Your task to perform on an android device: turn off javascript in the chrome app Image 0: 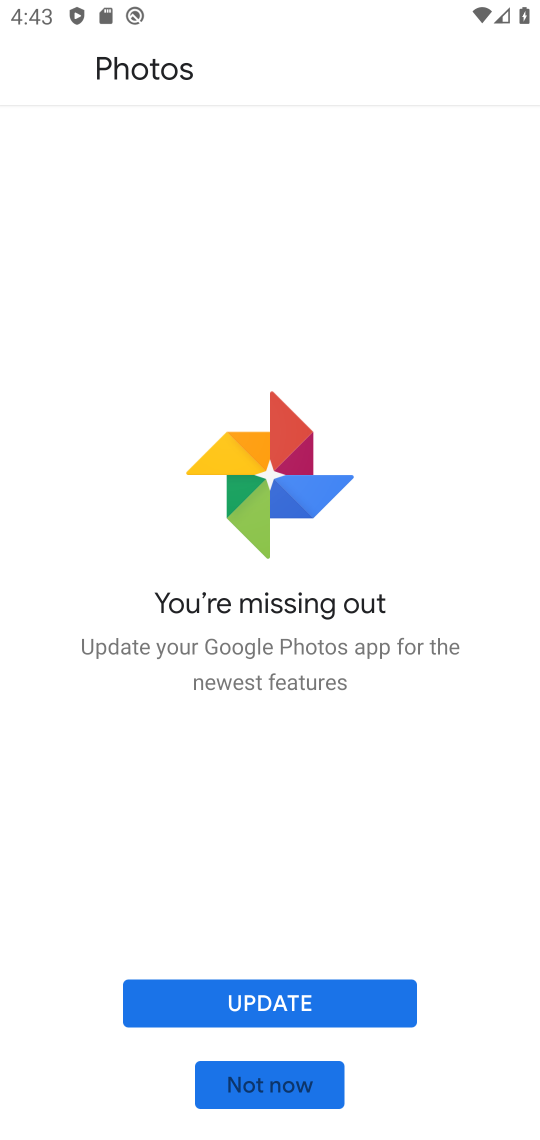
Step 0: press home button
Your task to perform on an android device: turn off javascript in the chrome app Image 1: 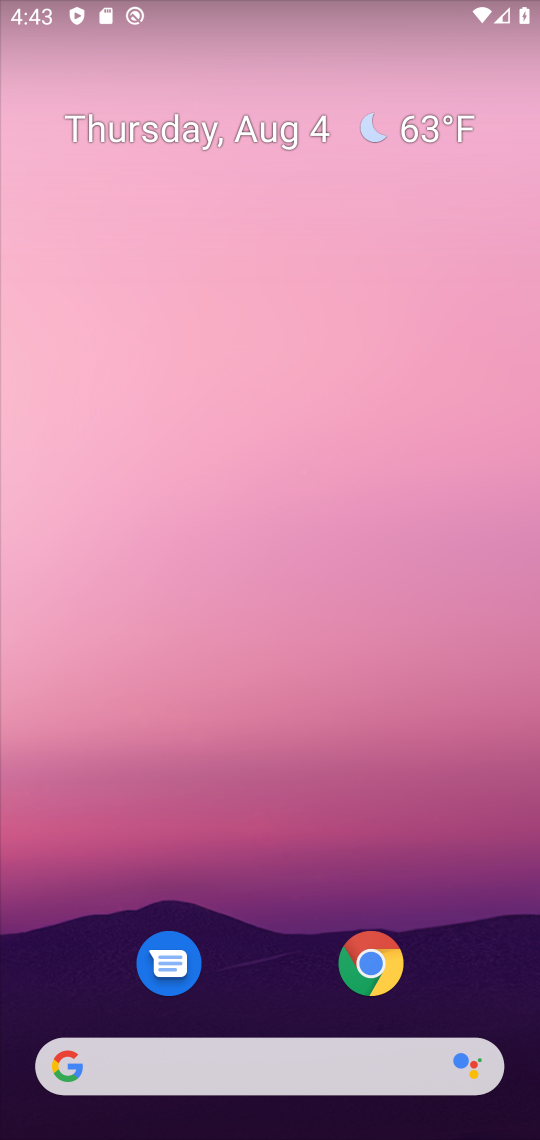
Step 1: click (372, 968)
Your task to perform on an android device: turn off javascript in the chrome app Image 2: 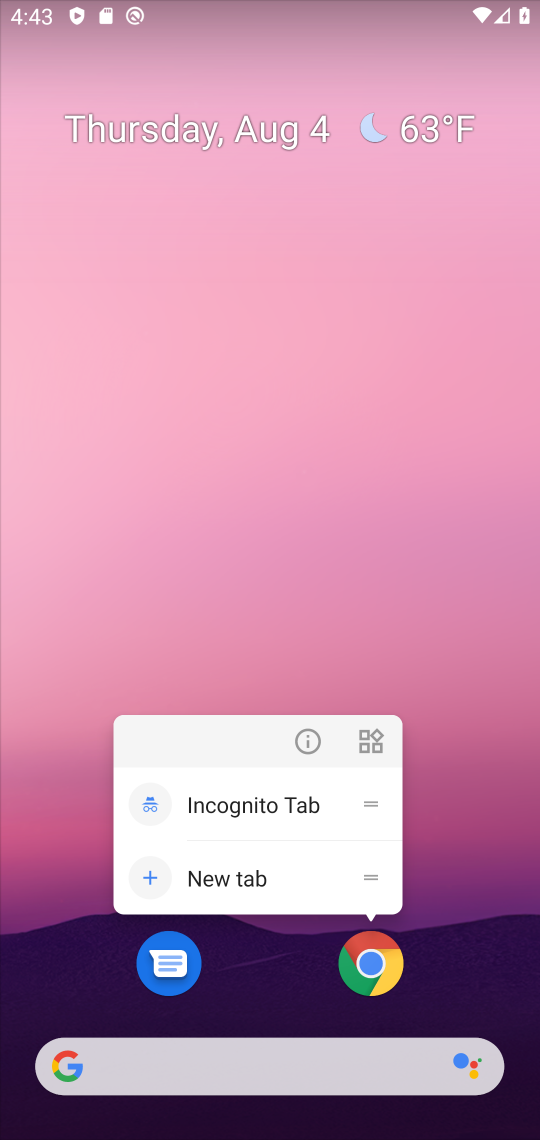
Step 2: click (372, 968)
Your task to perform on an android device: turn off javascript in the chrome app Image 3: 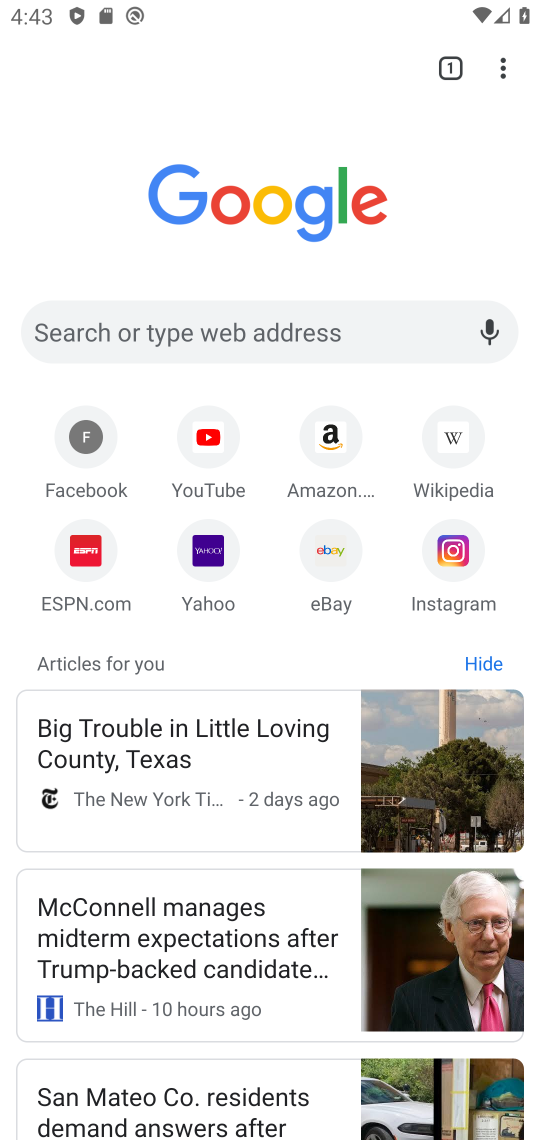
Step 3: click (506, 73)
Your task to perform on an android device: turn off javascript in the chrome app Image 4: 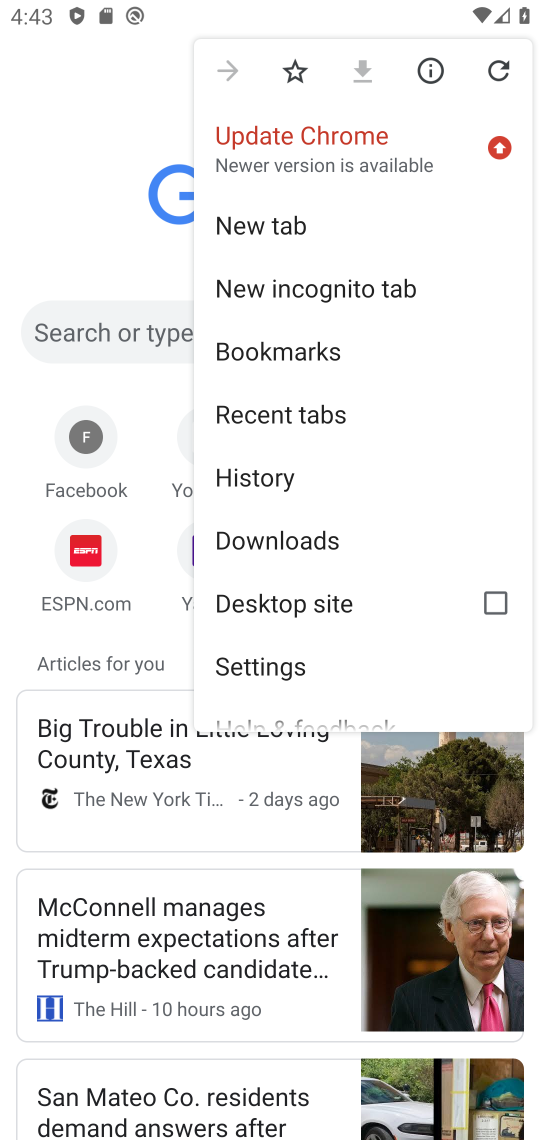
Step 4: click (267, 662)
Your task to perform on an android device: turn off javascript in the chrome app Image 5: 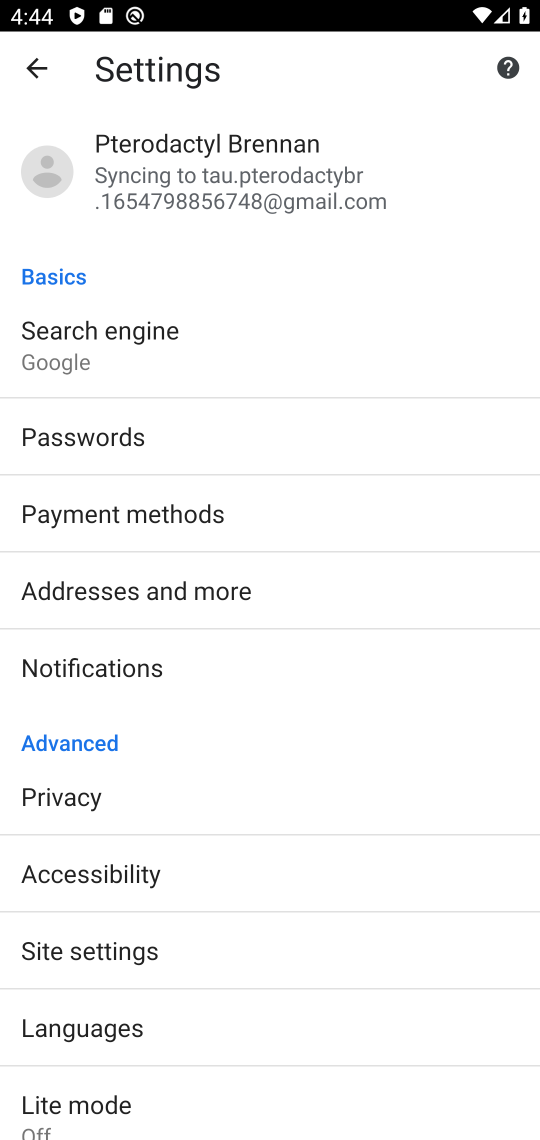
Step 5: click (105, 937)
Your task to perform on an android device: turn off javascript in the chrome app Image 6: 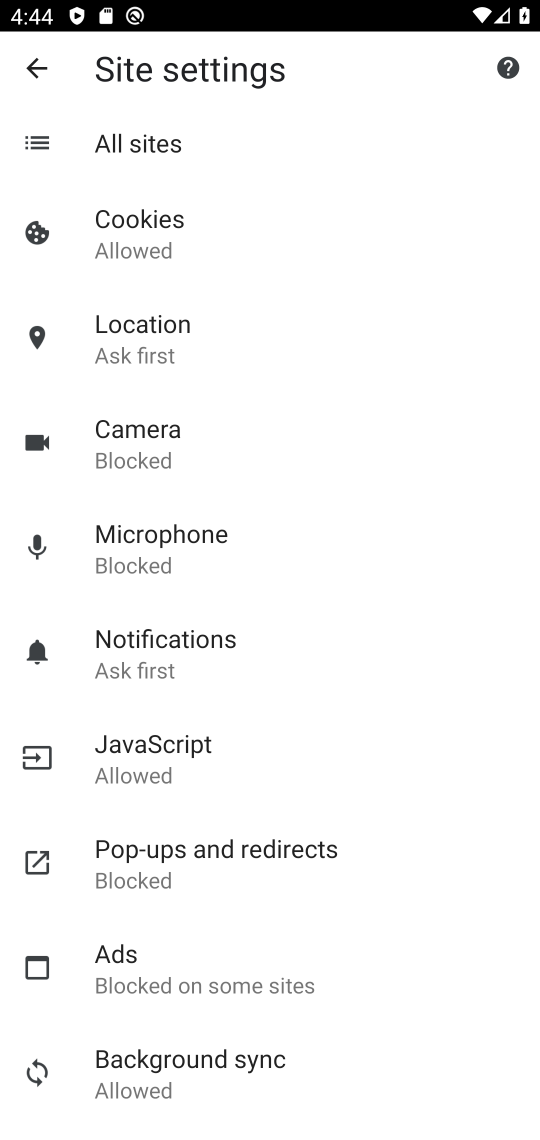
Step 6: click (140, 743)
Your task to perform on an android device: turn off javascript in the chrome app Image 7: 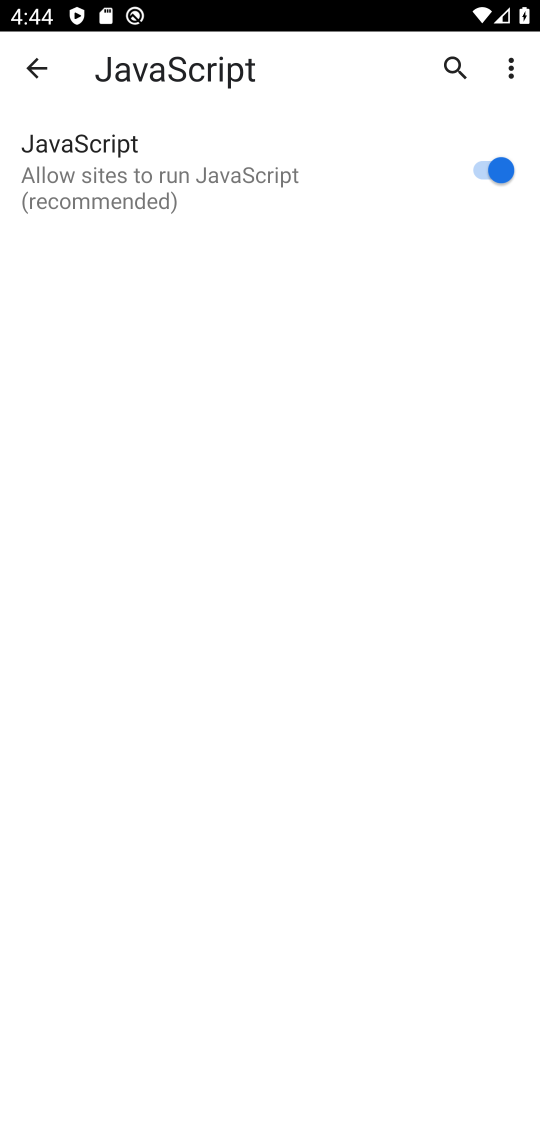
Step 7: click (512, 160)
Your task to perform on an android device: turn off javascript in the chrome app Image 8: 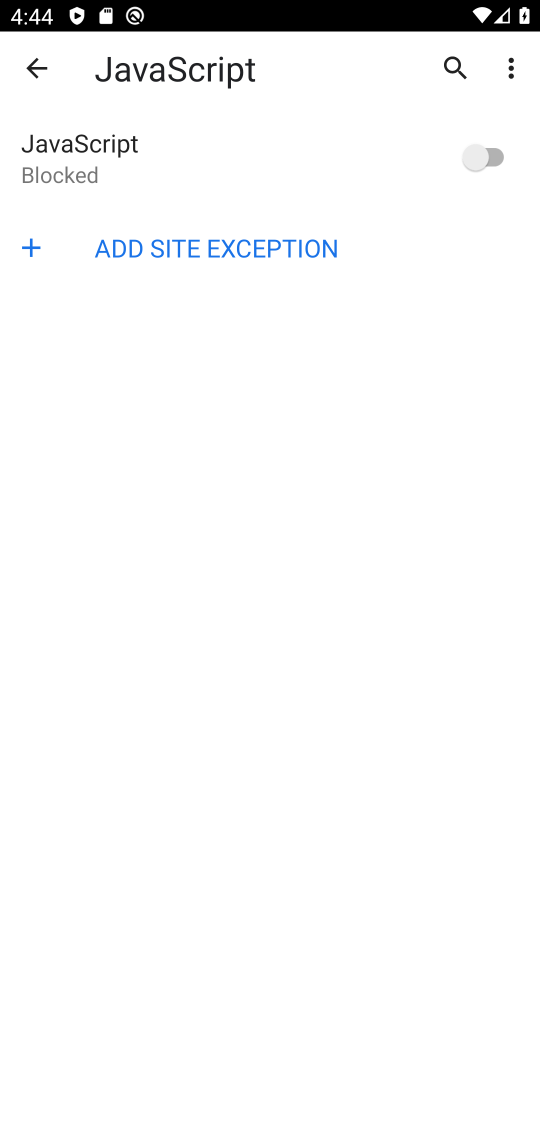
Step 8: task complete